Your task to perform on an android device: make emails show in primary in the gmail app Image 0: 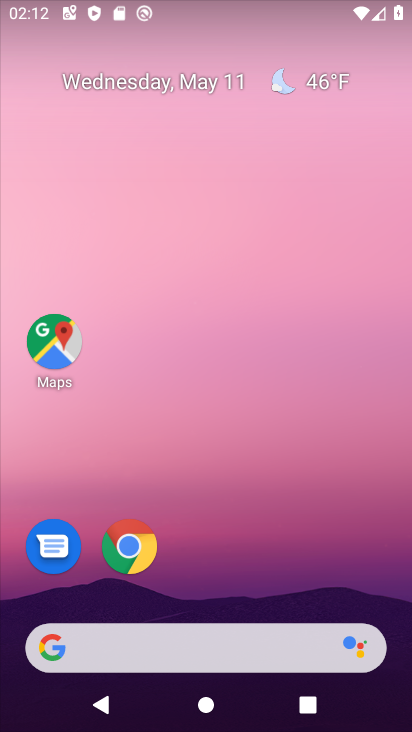
Step 0: drag from (181, 600) to (239, 183)
Your task to perform on an android device: make emails show in primary in the gmail app Image 1: 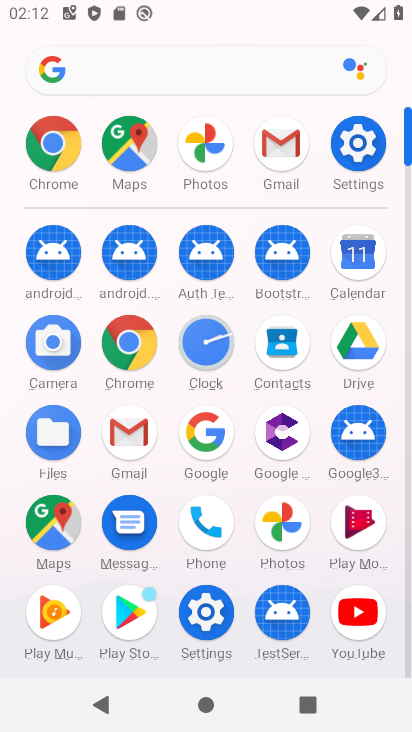
Step 1: click (286, 145)
Your task to perform on an android device: make emails show in primary in the gmail app Image 2: 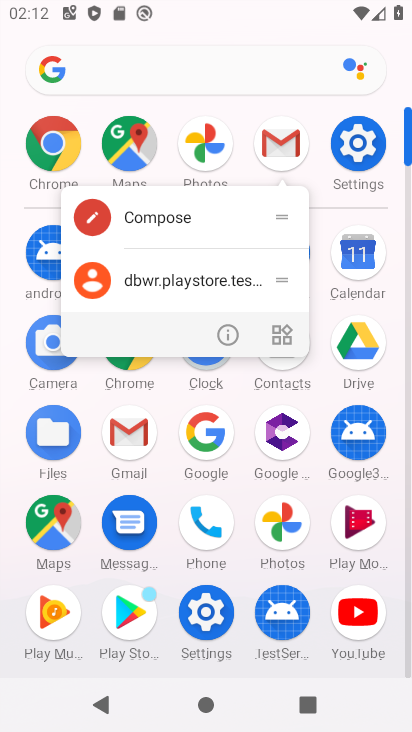
Step 2: click (212, 347)
Your task to perform on an android device: make emails show in primary in the gmail app Image 3: 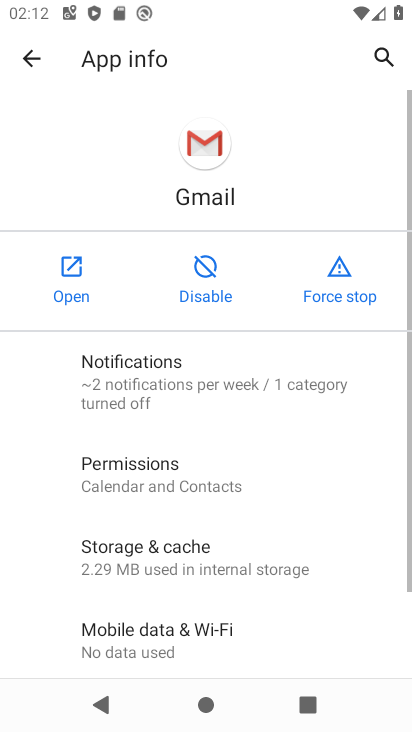
Step 3: click (74, 272)
Your task to perform on an android device: make emails show in primary in the gmail app Image 4: 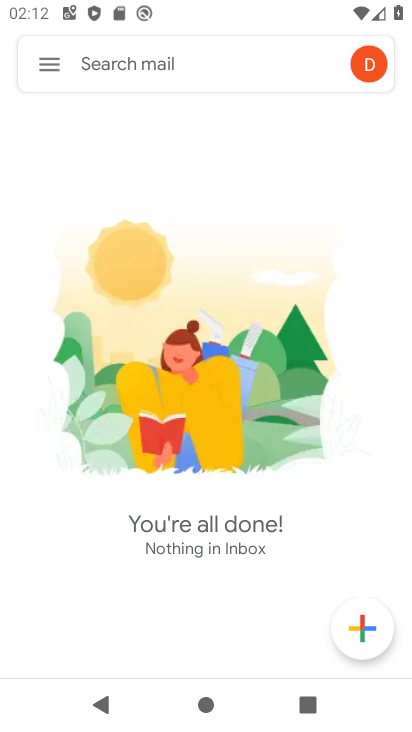
Step 4: click (49, 49)
Your task to perform on an android device: make emails show in primary in the gmail app Image 5: 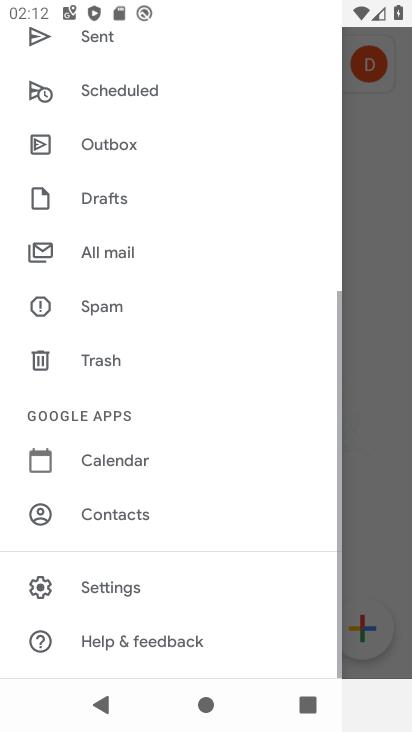
Step 5: drag from (140, 527) to (217, 100)
Your task to perform on an android device: make emails show in primary in the gmail app Image 6: 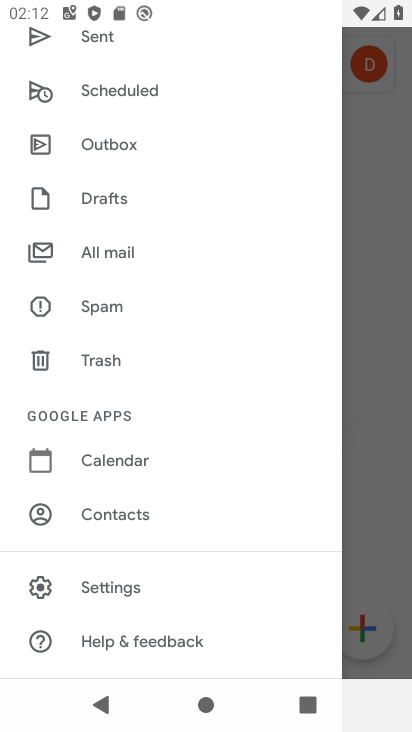
Step 6: drag from (151, 262) to (236, 726)
Your task to perform on an android device: make emails show in primary in the gmail app Image 7: 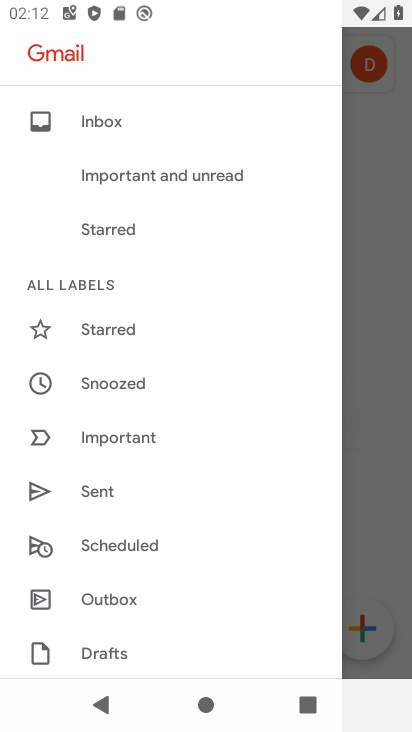
Step 7: drag from (167, 184) to (215, 448)
Your task to perform on an android device: make emails show in primary in the gmail app Image 8: 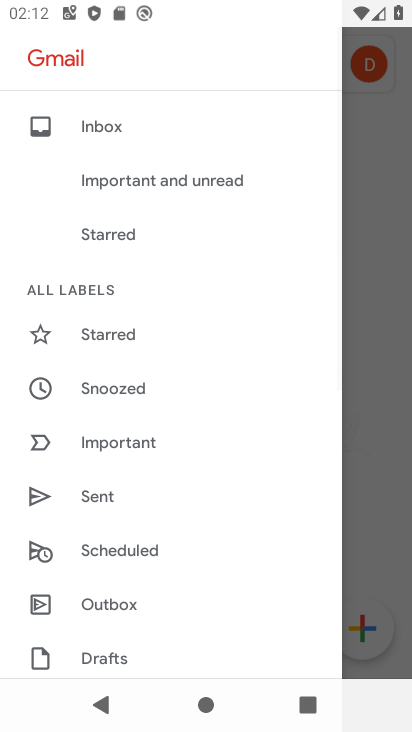
Step 8: click (128, 124)
Your task to perform on an android device: make emails show in primary in the gmail app Image 9: 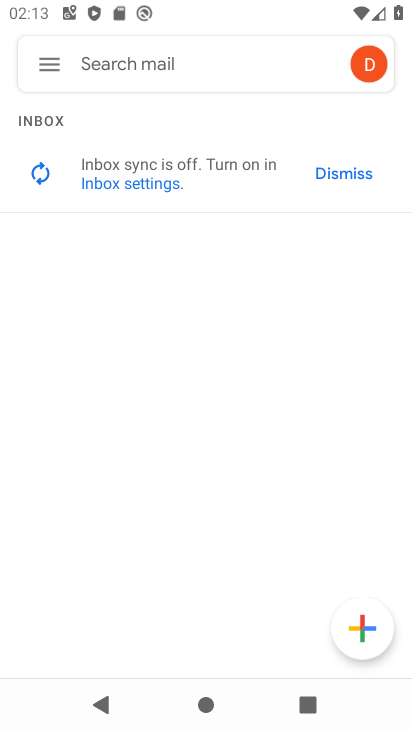
Step 9: task complete